Your task to perform on an android device: add a contact Image 0: 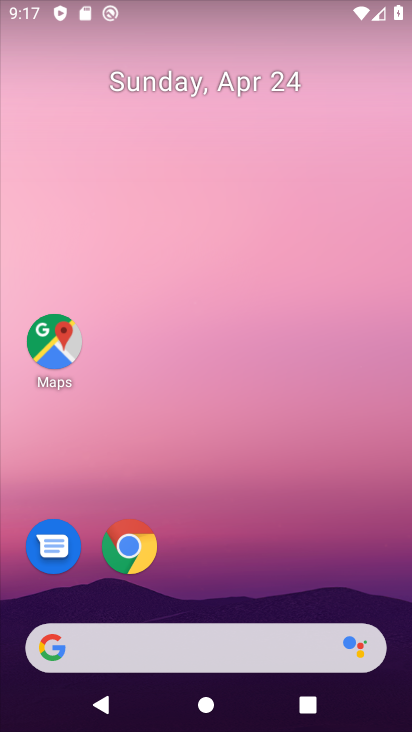
Step 0: drag from (280, 604) to (187, 138)
Your task to perform on an android device: add a contact Image 1: 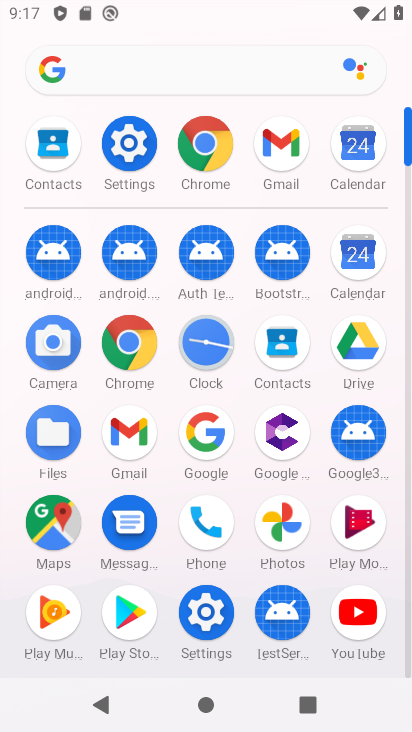
Step 1: click (37, 169)
Your task to perform on an android device: add a contact Image 2: 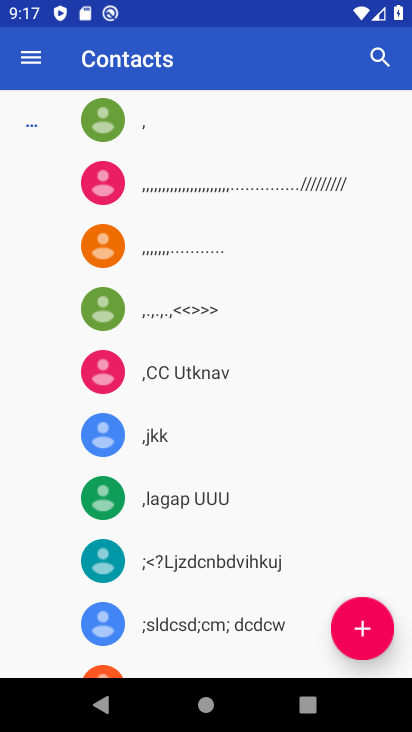
Step 2: click (350, 642)
Your task to perform on an android device: add a contact Image 3: 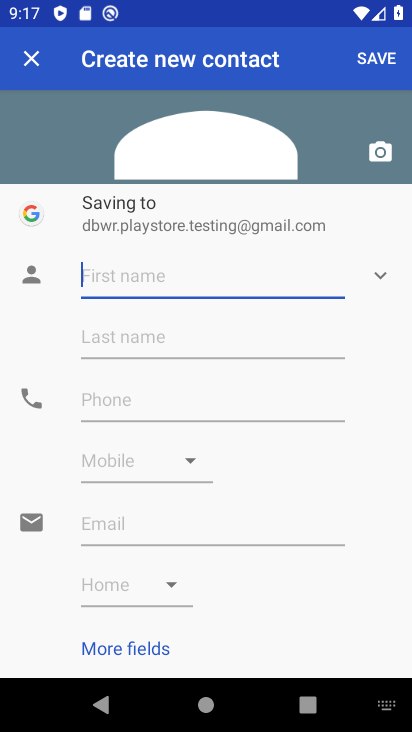
Step 3: type "fsdfds"
Your task to perform on an android device: add a contact Image 4: 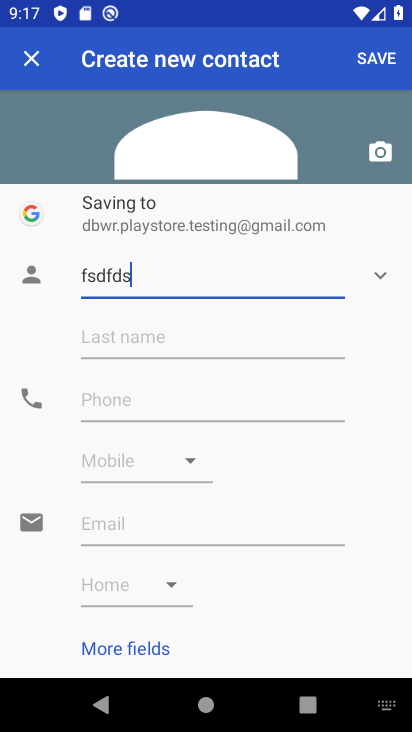
Step 4: click (272, 330)
Your task to perform on an android device: add a contact Image 5: 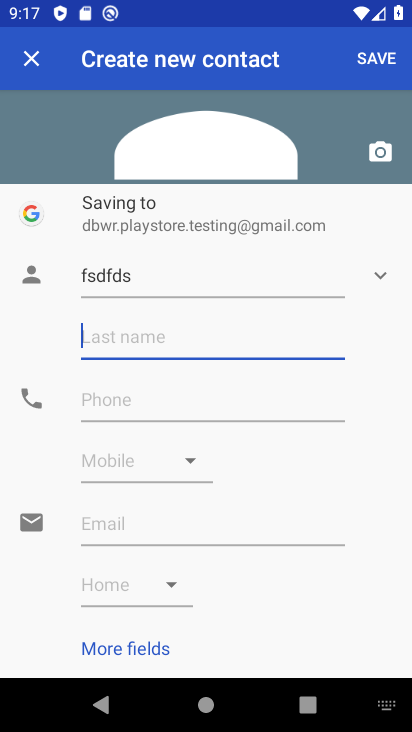
Step 5: type "sdfdsf"
Your task to perform on an android device: add a contact Image 6: 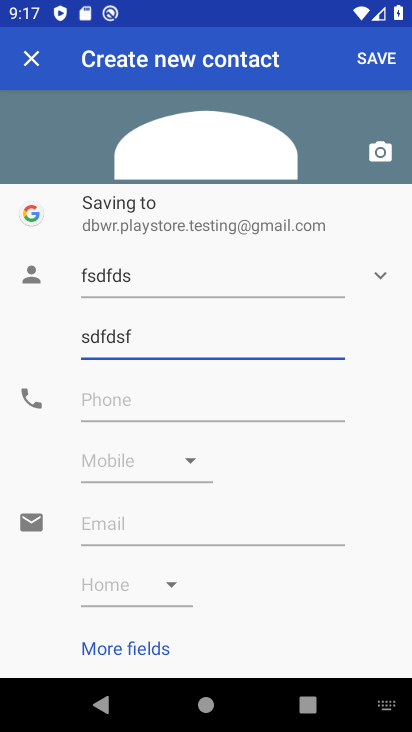
Step 6: click (324, 397)
Your task to perform on an android device: add a contact Image 7: 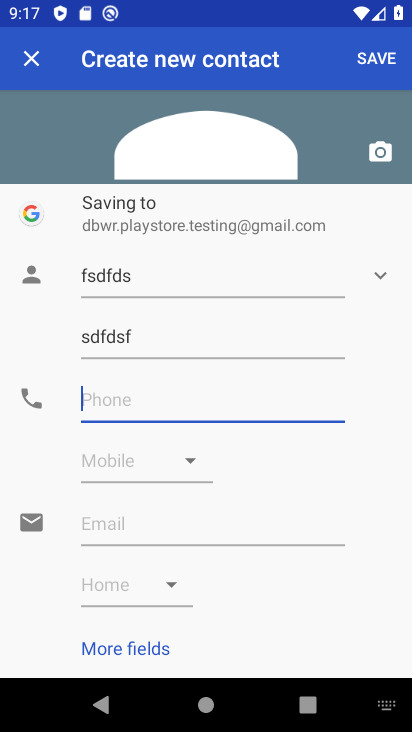
Step 7: type "543534453453"
Your task to perform on an android device: add a contact Image 8: 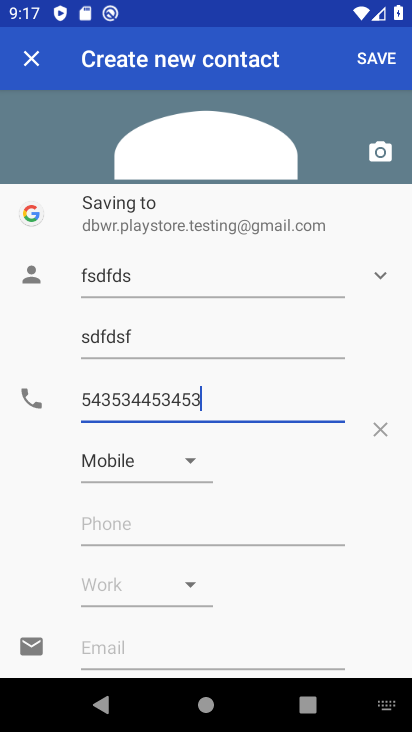
Step 8: click (367, 59)
Your task to perform on an android device: add a contact Image 9: 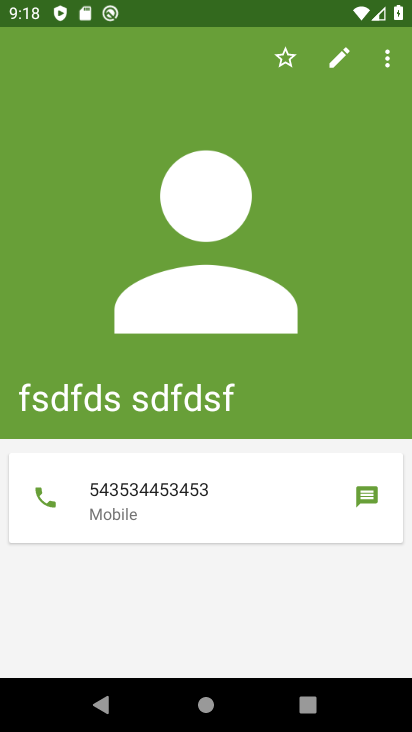
Step 9: task complete